Your task to perform on an android device: Go to Yahoo.com Image 0: 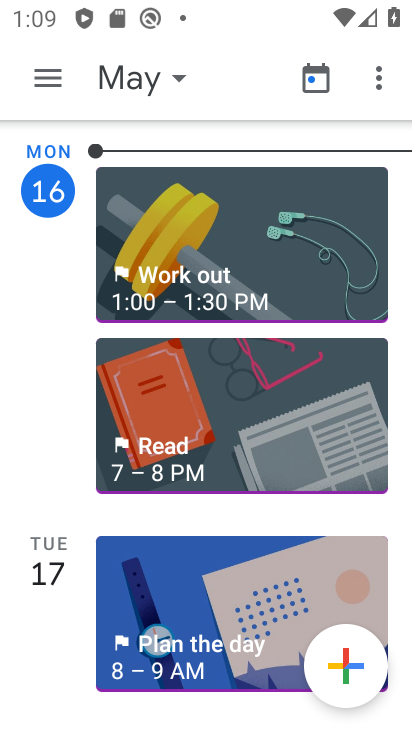
Step 0: press home button
Your task to perform on an android device: Go to Yahoo.com Image 1: 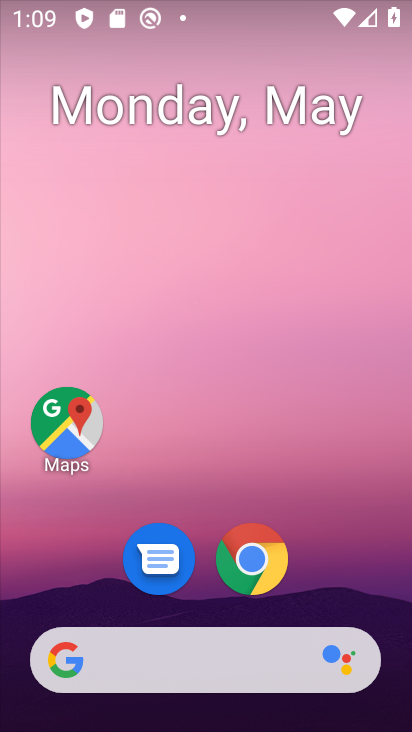
Step 1: click (222, 659)
Your task to perform on an android device: Go to Yahoo.com Image 2: 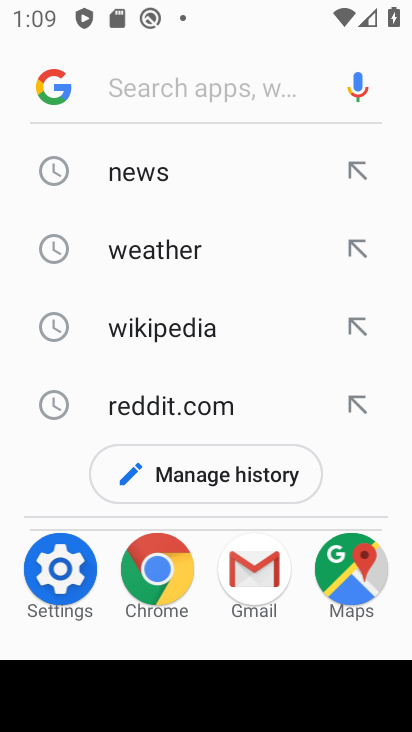
Step 2: type "yahoo.com"
Your task to perform on an android device: Go to Yahoo.com Image 3: 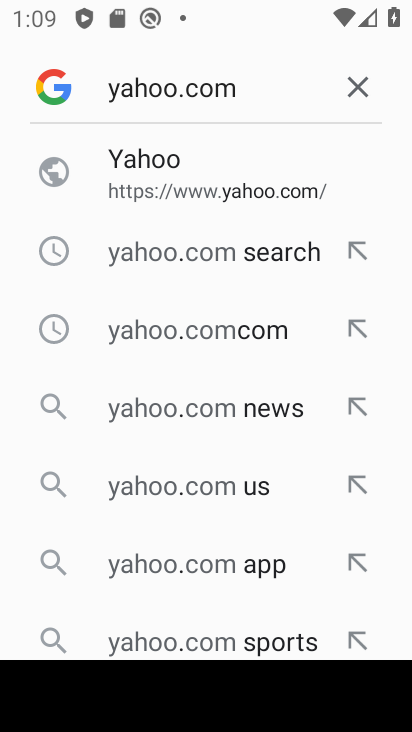
Step 3: click (234, 193)
Your task to perform on an android device: Go to Yahoo.com Image 4: 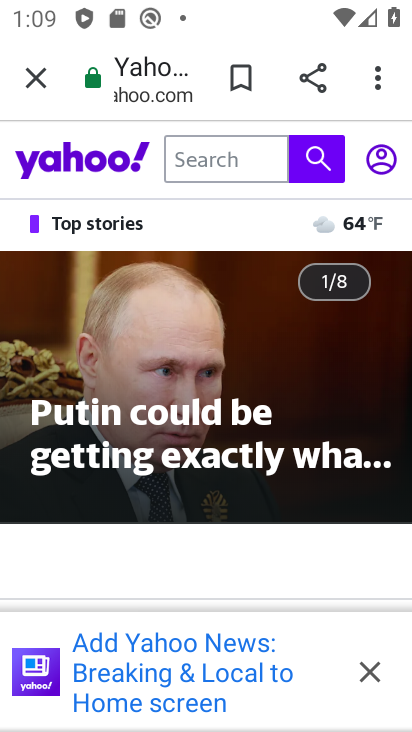
Step 4: task complete